Your task to perform on an android device: What's the weather today? Image 0: 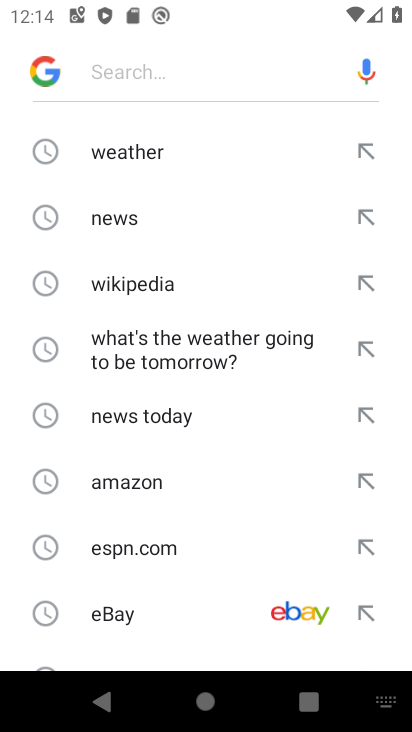
Step 0: click (98, 149)
Your task to perform on an android device: What's the weather today? Image 1: 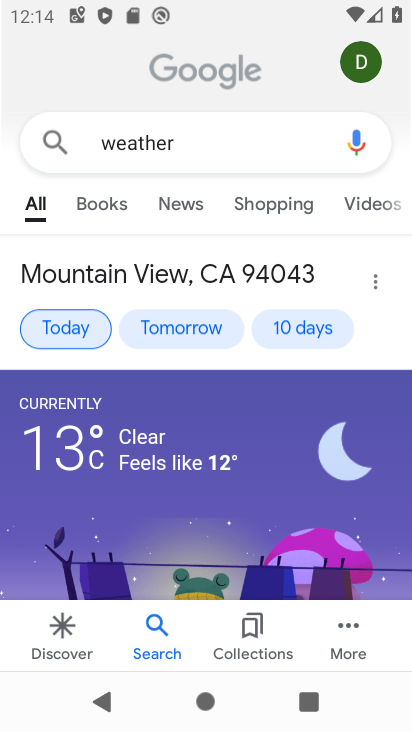
Step 1: click (83, 330)
Your task to perform on an android device: What's the weather today? Image 2: 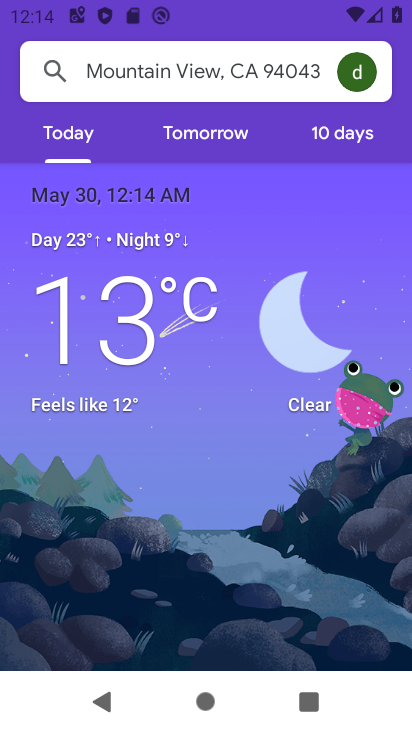
Step 2: task complete